Your task to perform on an android device: move a message to another label in the gmail app Image 0: 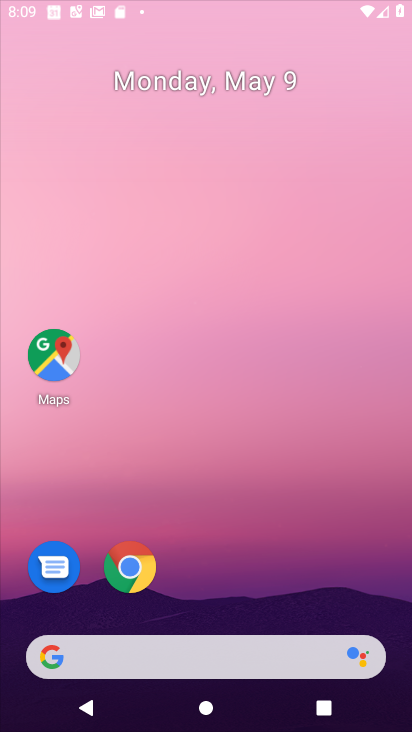
Step 0: drag from (178, 596) to (198, 284)
Your task to perform on an android device: move a message to another label in the gmail app Image 1: 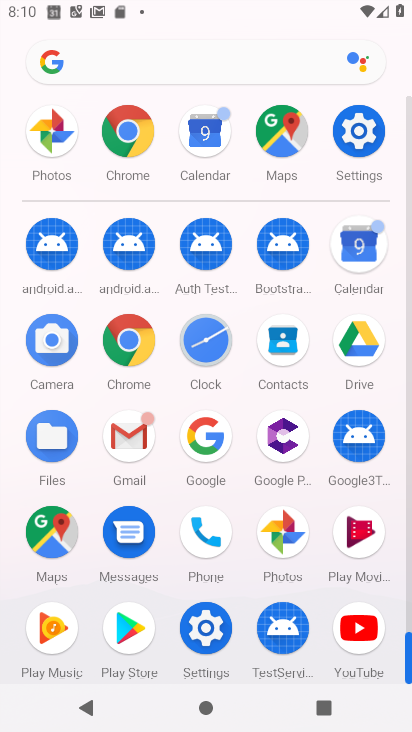
Step 1: click (118, 427)
Your task to perform on an android device: move a message to another label in the gmail app Image 2: 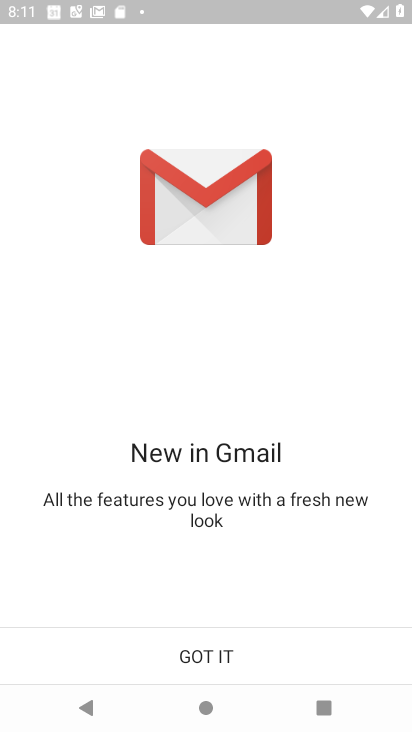
Step 2: click (182, 658)
Your task to perform on an android device: move a message to another label in the gmail app Image 3: 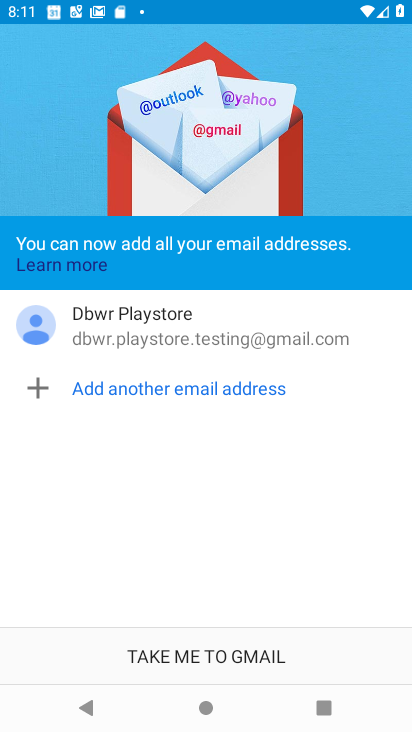
Step 3: click (230, 674)
Your task to perform on an android device: move a message to another label in the gmail app Image 4: 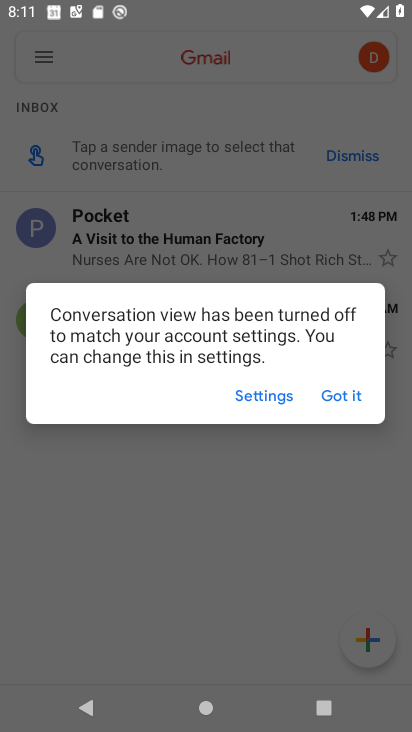
Step 4: click (351, 396)
Your task to perform on an android device: move a message to another label in the gmail app Image 5: 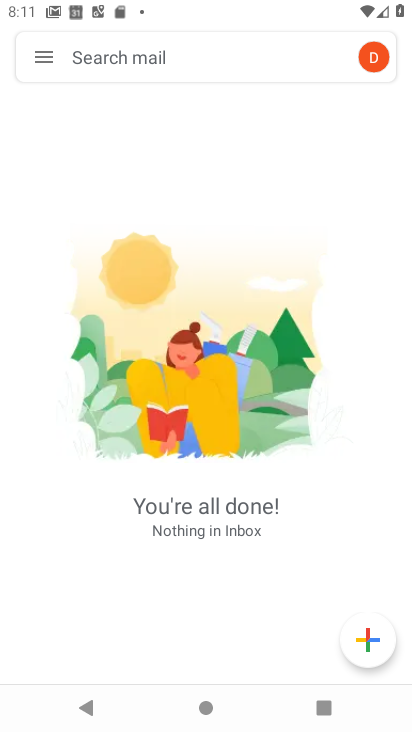
Step 5: click (41, 67)
Your task to perform on an android device: move a message to another label in the gmail app Image 6: 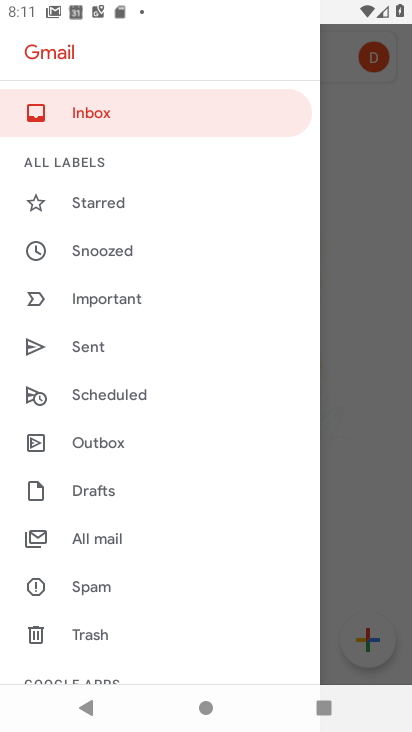
Step 6: click (99, 122)
Your task to perform on an android device: move a message to another label in the gmail app Image 7: 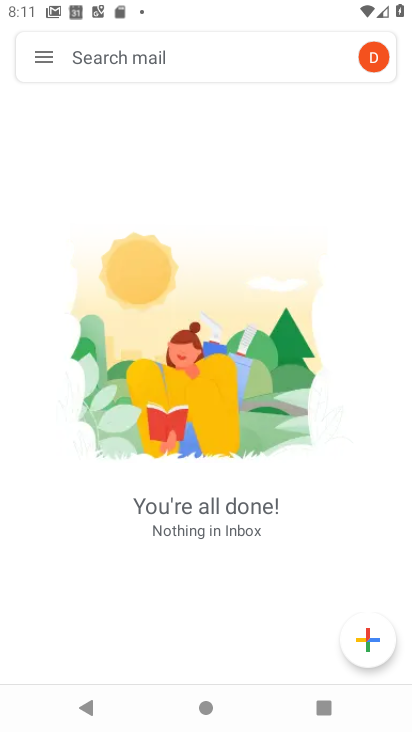
Step 7: task complete